Your task to perform on an android device: find which apps use the phone's location Image 0: 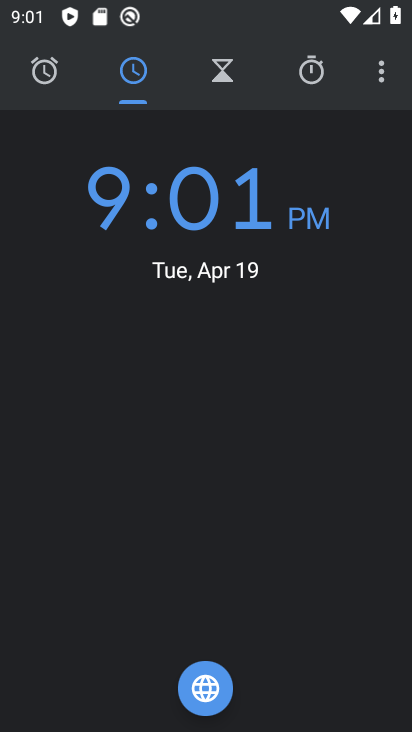
Step 0: press home button
Your task to perform on an android device: find which apps use the phone's location Image 1: 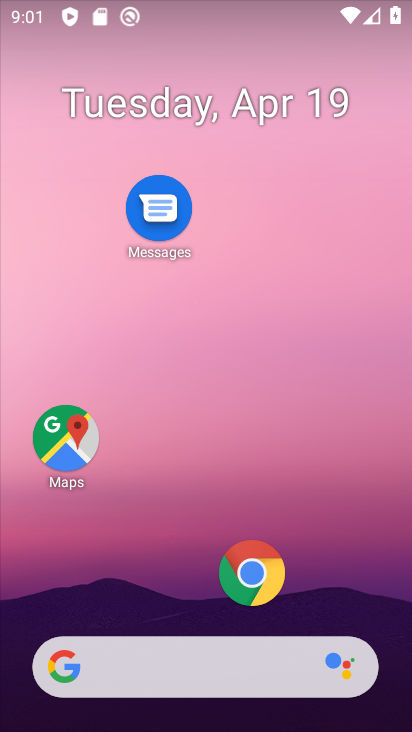
Step 1: drag from (152, 555) to (194, 21)
Your task to perform on an android device: find which apps use the phone's location Image 2: 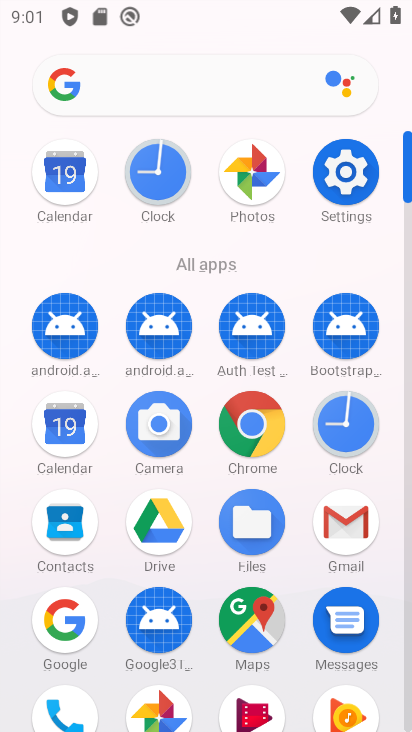
Step 2: click (343, 187)
Your task to perform on an android device: find which apps use the phone's location Image 3: 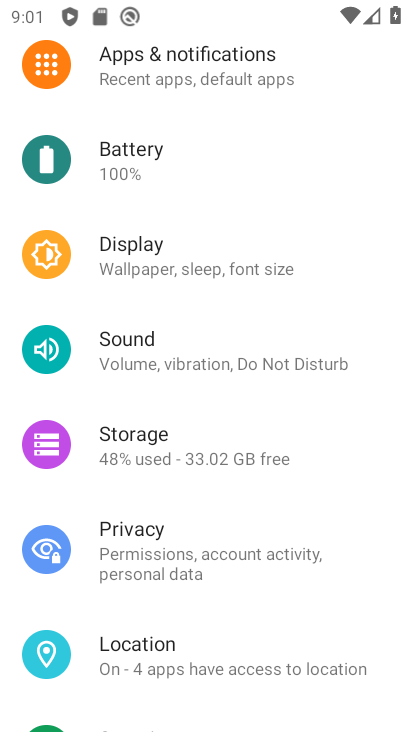
Step 3: click (147, 656)
Your task to perform on an android device: find which apps use the phone's location Image 4: 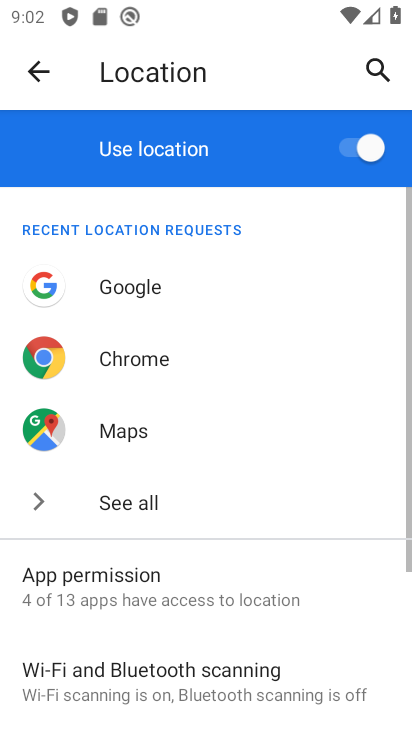
Step 4: click (144, 574)
Your task to perform on an android device: find which apps use the phone's location Image 5: 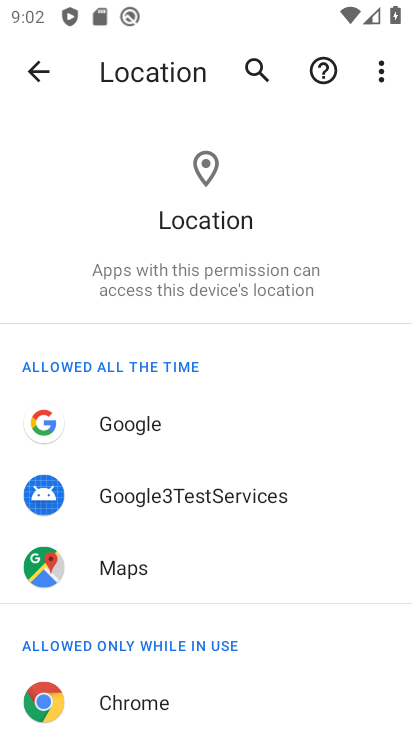
Step 5: task complete